Your task to perform on an android device: See recent photos Image 0: 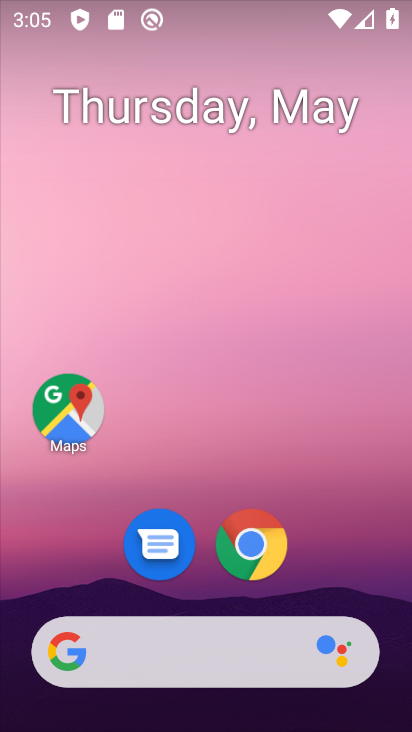
Step 0: drag from (227, 604) to (285, 190)
Your task to perform on an android device: See recent photos Image 1: 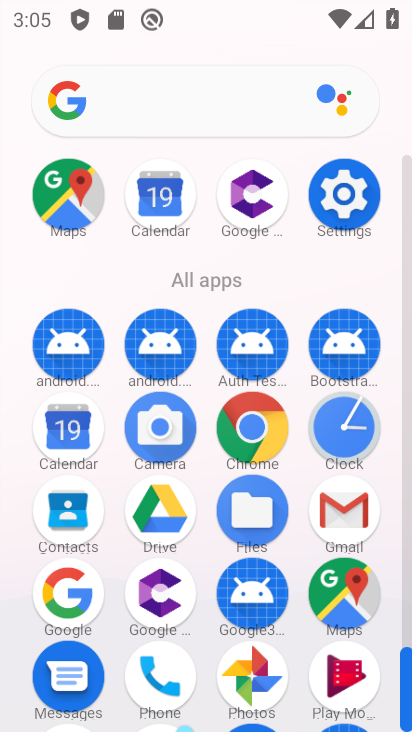
Step 1: click (252, 672)
Your task to perform on an android device: See recent photos Image 2: 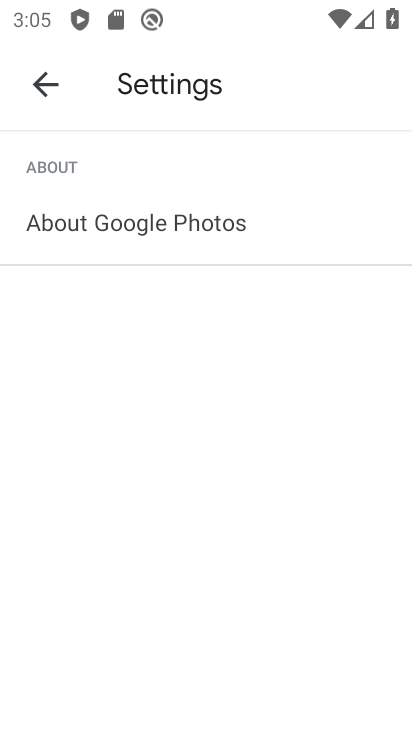
Step 2: click (43, 95)
Your task to perform on an android device: See recent photos Image 3: 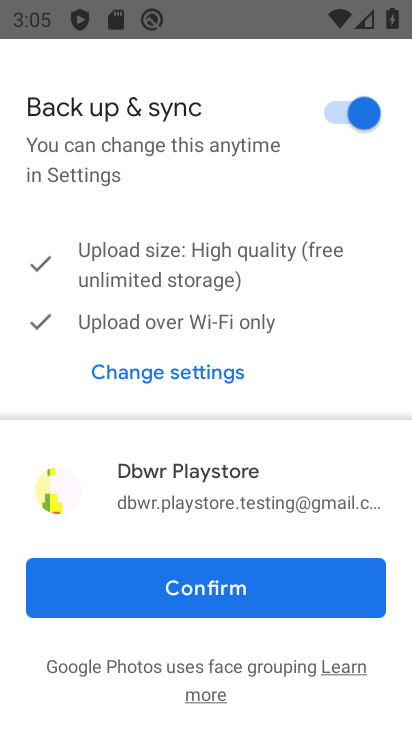
Step 3: click (208, 581)
Your task to perform on an android device: See recent photos Image 4: 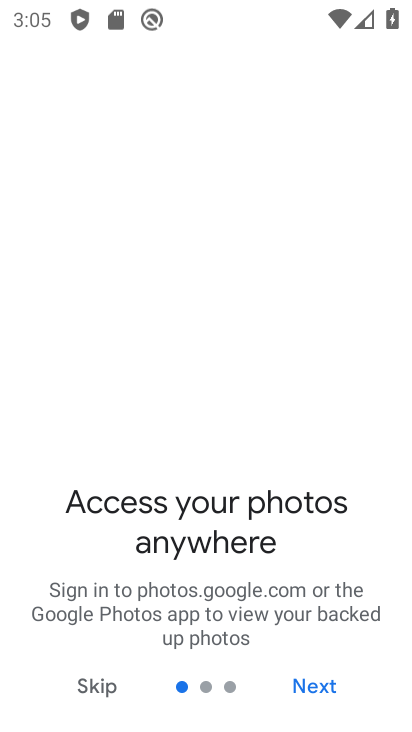
Step 4: click (98, 678)
Your task to perform on an android device: See recent photos Image 5: 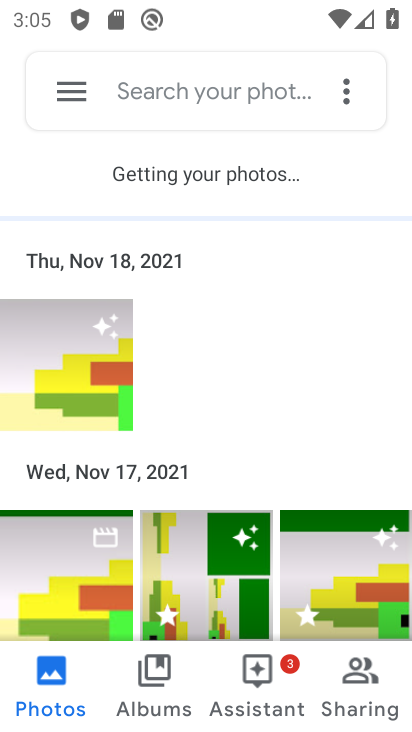
Step 5: task complete